Your task to perform on an android device: clear all cookies in the chrome app Image 0: 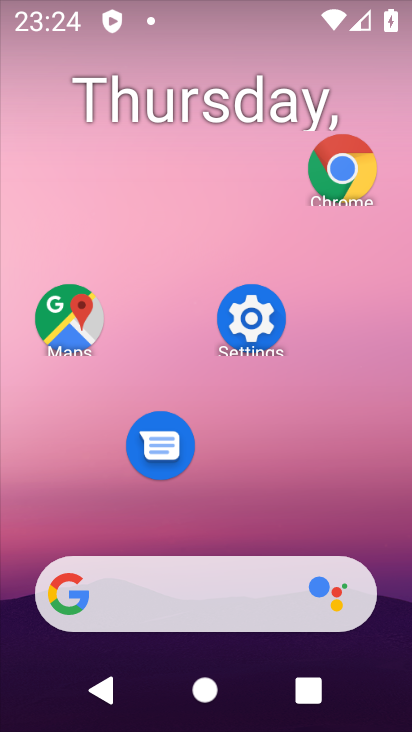
Step 0: drag from (289, 438) to (404, 98)
Your task to perform on an android device: clear all cookies in the chrome app Image 1: 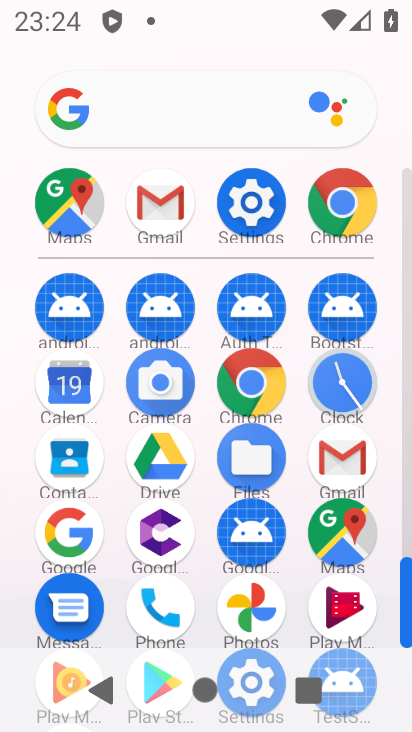
Step 1: click (339, 199)
Your task to perform on an android device: clear all cookies in the chrome app Image 2: 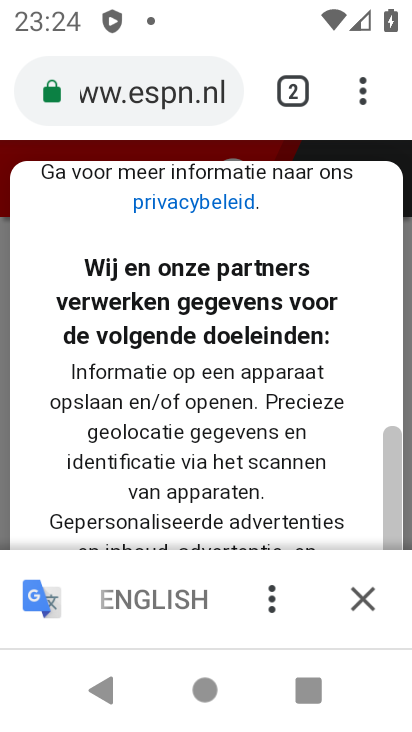
Step 2: click (361, 82)
Your task to perform on an android device: clear all cookies in the chrome app Image 3: 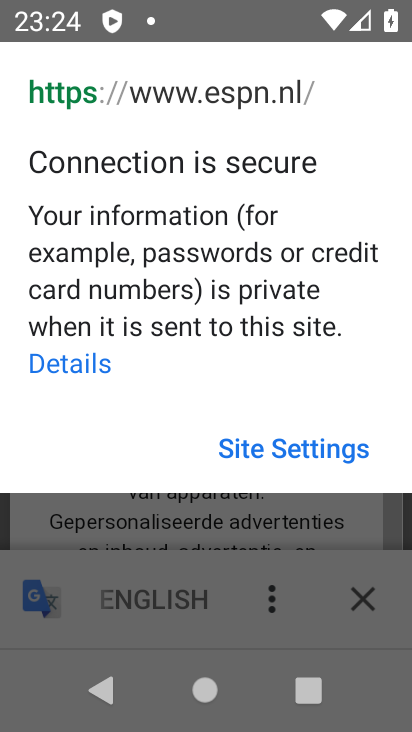
Step 3: click (202, 511)
Your task to perform on an android device: clear all cookies in the chrome app Image 4: 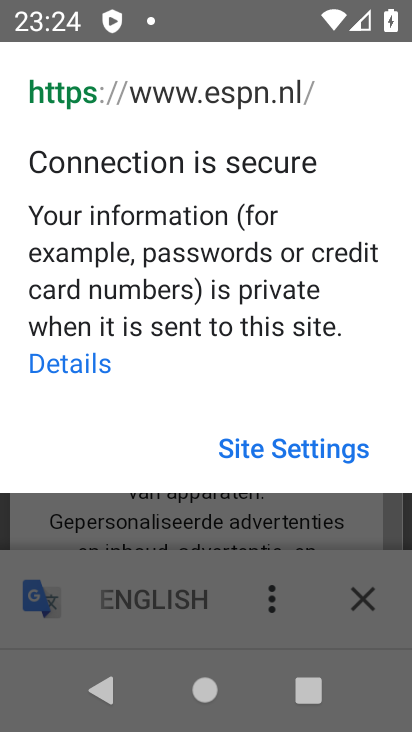
Step 4: press back button
Your task to perform on an android device: clear all cookies in the chrome app Image 5: 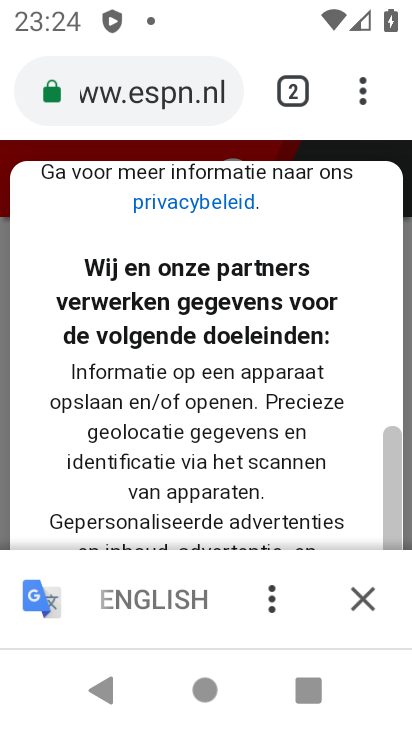
Step 5: click (371, 76)
Your task to perform on an android device: clear all cookies in the chrome app Image 6: 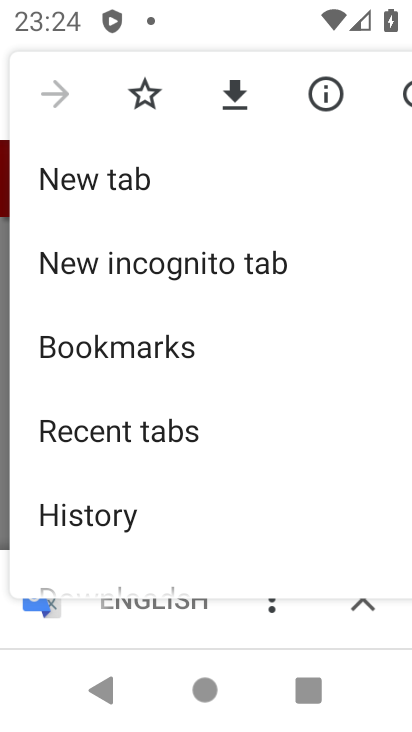
Step 6: drag from (190, 536) to (313, 84)
Your task to perform on an android device: clear all cookies in the chrome app Image 7: 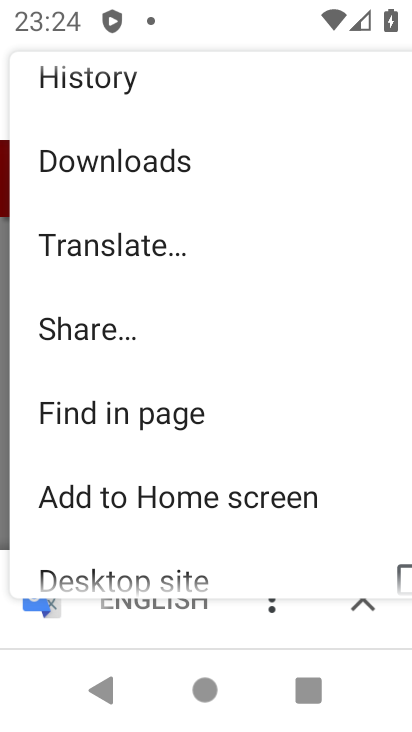
Step 7: drag from (170, 517) to (254, 212)
Your task to perform on an android device: clear all cookies in the chrome app Image 8: 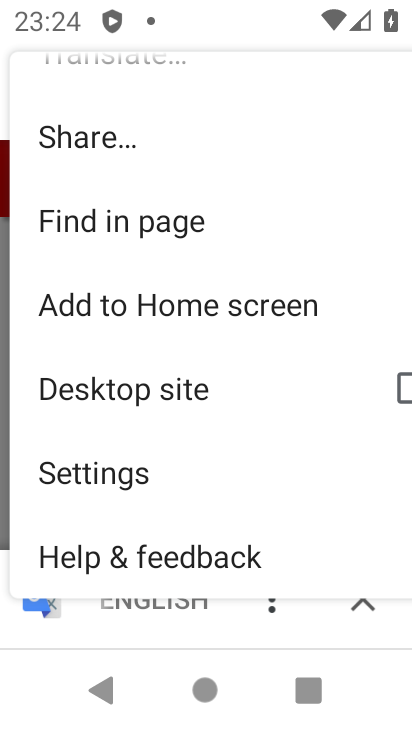
Step 8: click (119, 482)
Your task to perform on an android device: clear all cookies in the chrome app Image 9: 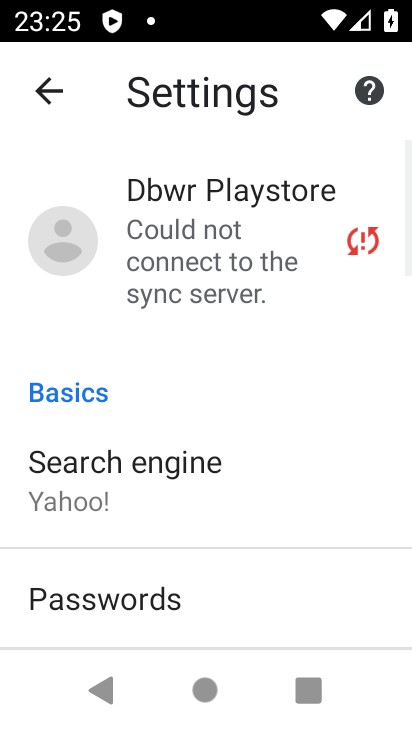
Step 9: click (51, 104)
Your task to perform on an android device: clear all cookies in the chrome app Image 10: 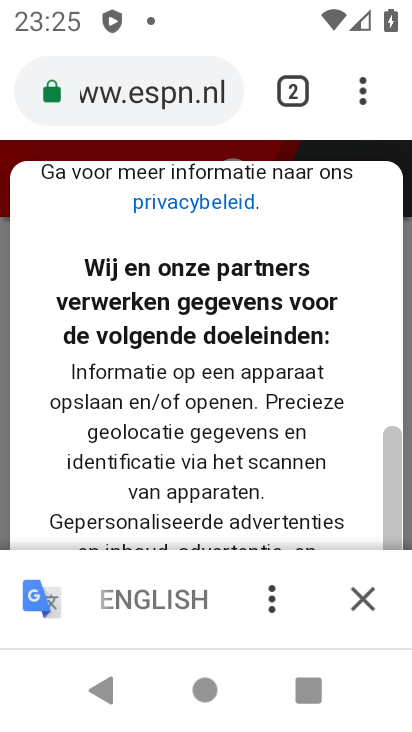
Step 10: click (353, 82)
Your task to perform on an android device: clear all cookies in the chrome app Image 11: 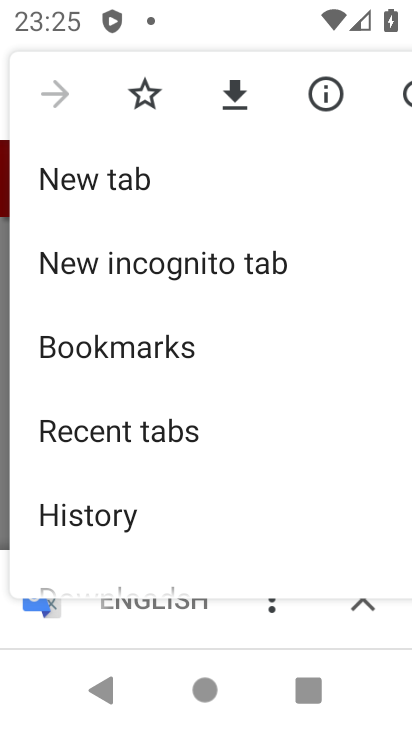
Step 11: click (94, 508)
Your task to perform on an android device: clear all cookies in the chrome app Image 12: 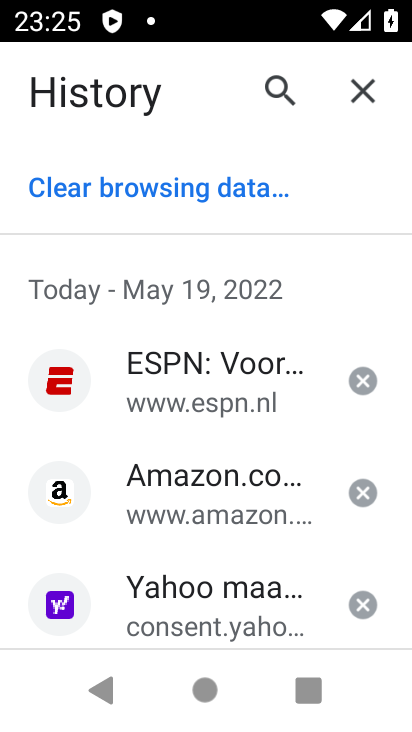
Step 12: click (99, 178)
Your task to perform on an android device: clear all cookies in the chrome app Image 13: 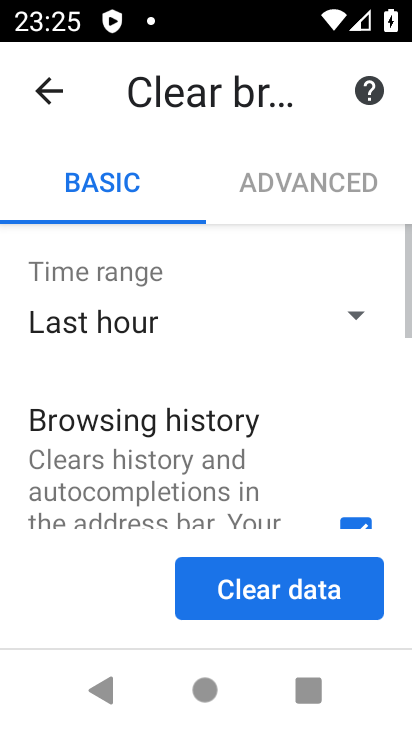
Step 13: drag from (321, 495) to (347, 335)
Your task to perform on an android device: clear all cookies in the chrome app Image 14: 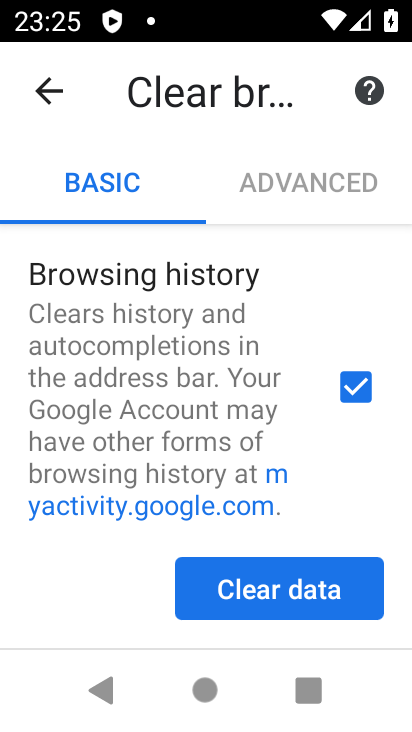
Step 14: click (344, 390)
Your task to perform on an android device: clear all cookies in the chrome app Image 15: 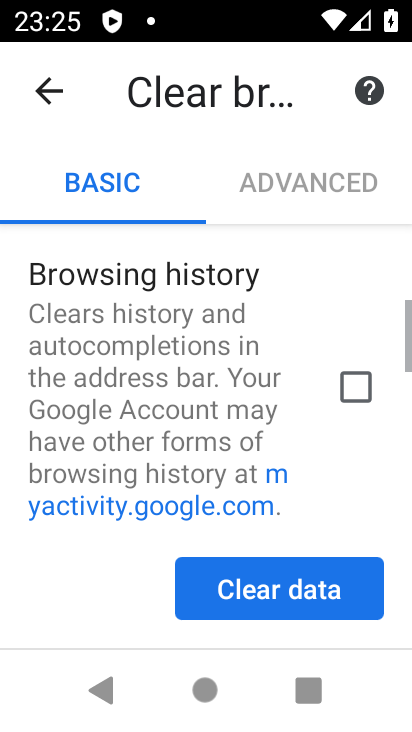
Step 15: task complete